Your task to perform on an android device: move a message to another label in the gmail app Image 0: 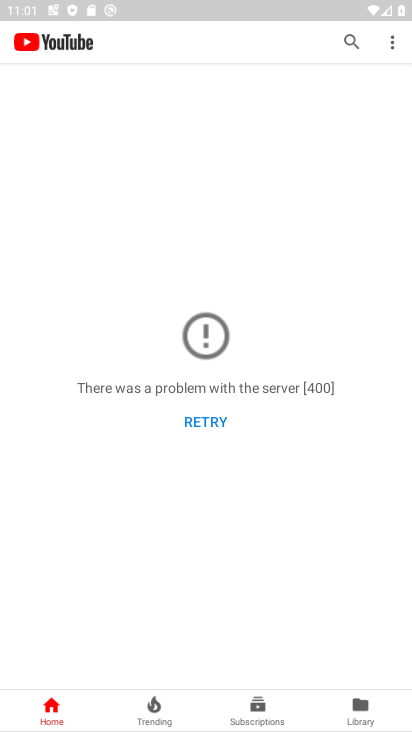
Step 0: press back button
Your task to perform on an android device: move a message to another label in the gmail app Image 1: 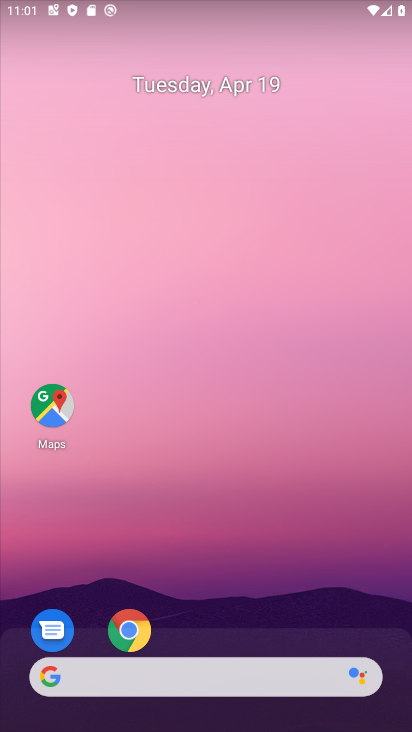
Step 1: drag from (377, 622) to (291, 87)
Your task to perform on an android device: move a message to another label in the gmail app Image 2: 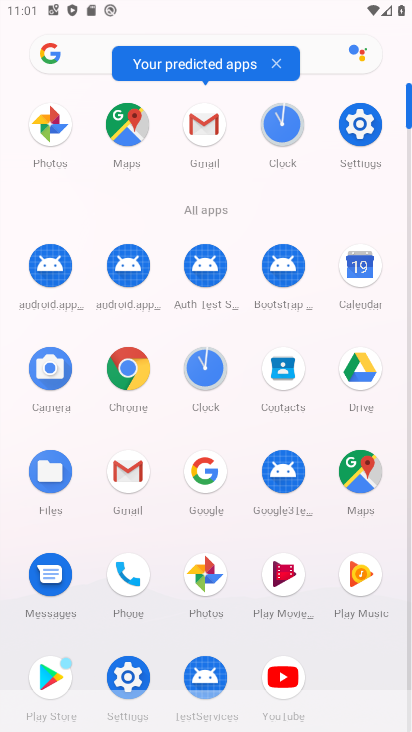
Step 2: click (210, 129)
Your task to perform on an android device: move a message to another label in the gmail app Image 3: 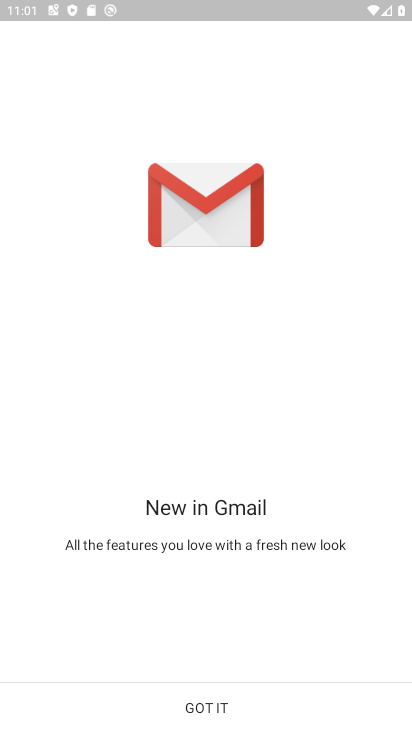
Step 3: click (211, 708)
Your task to perform on an android device: move a message to another label in the gmail app Image 4: 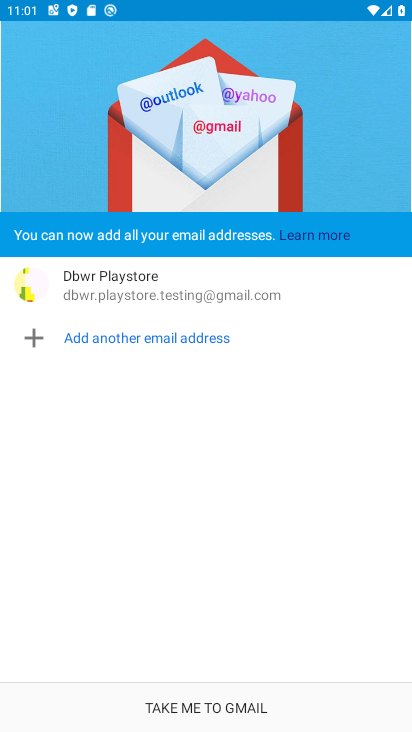
Step 4: click (211, 708)
Your task to perform on an android device: move a message to another label in the gmail app Image 5: 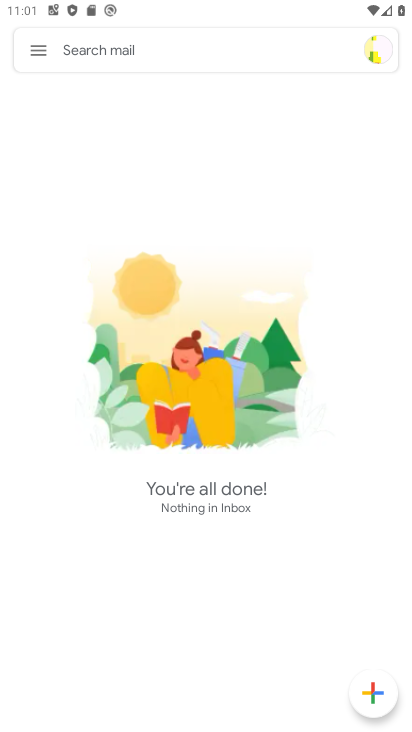
Step 5: task complete